Your task to perform on an android device: change keyboard looks Image 0: 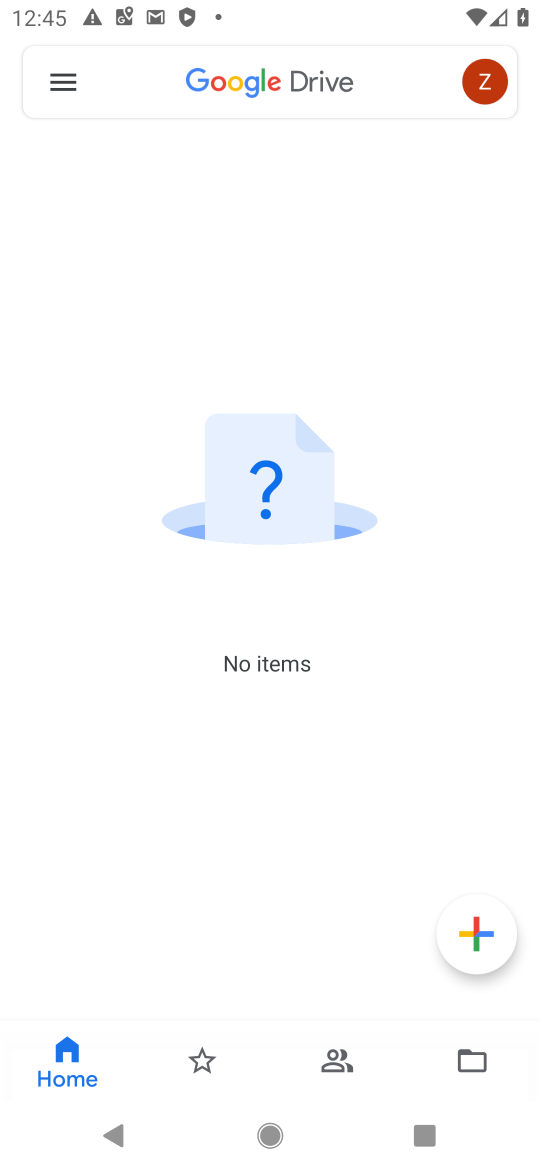
Step 0: drag from (260, 714) to (312, 420)
Your task to perform on an android device: change keyboard looks Image 1: 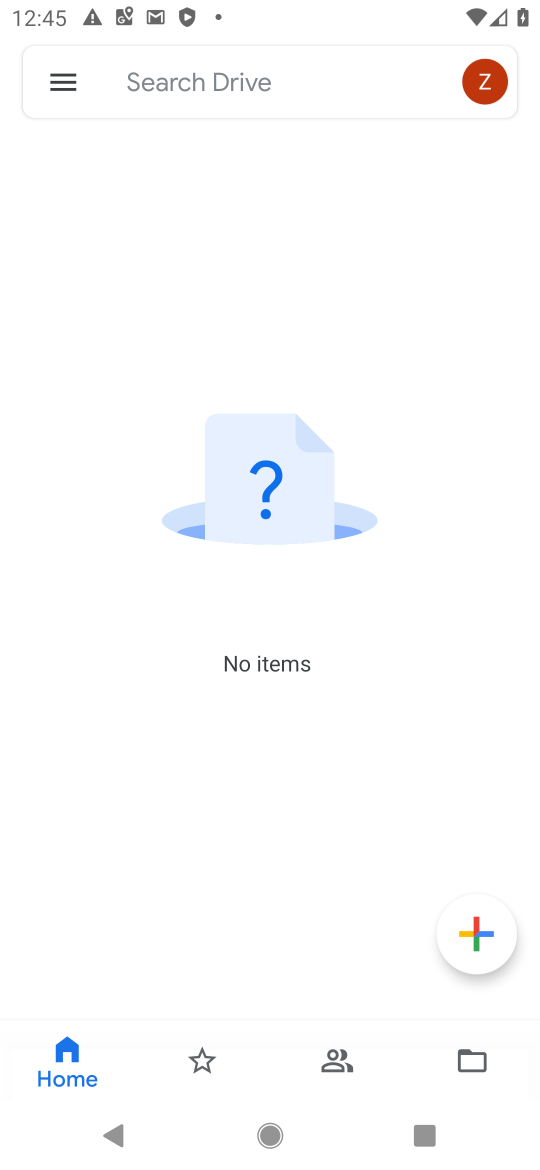
Step 1: drag from (298, 635) to (364, 345)
Your task to perform on an android device: change keyboard looks Image 2: 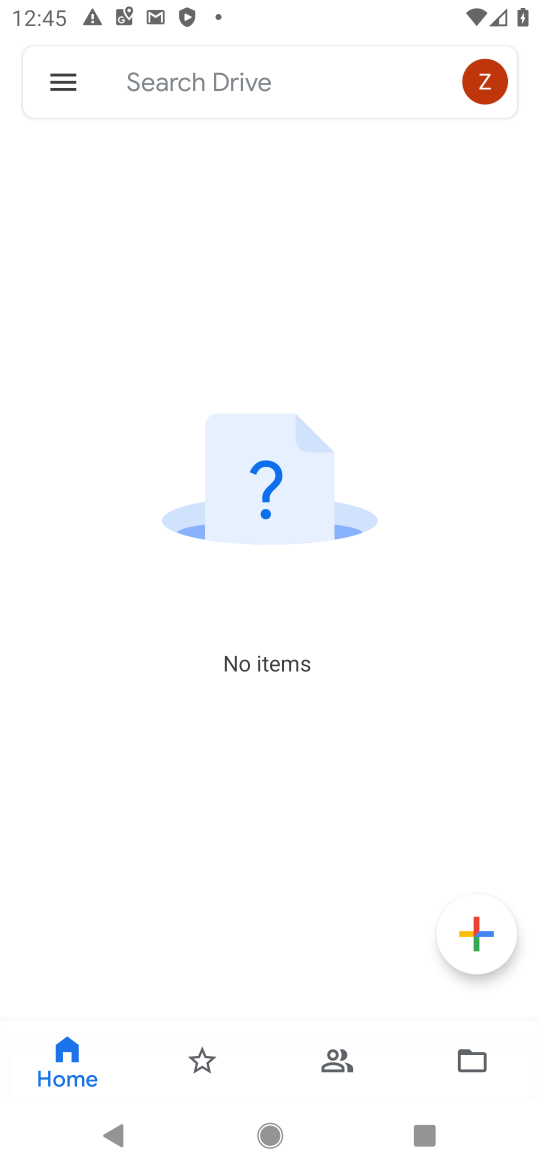
Step 2: press home button
Your task to perform on an android device: change keyboard looks Image 3: 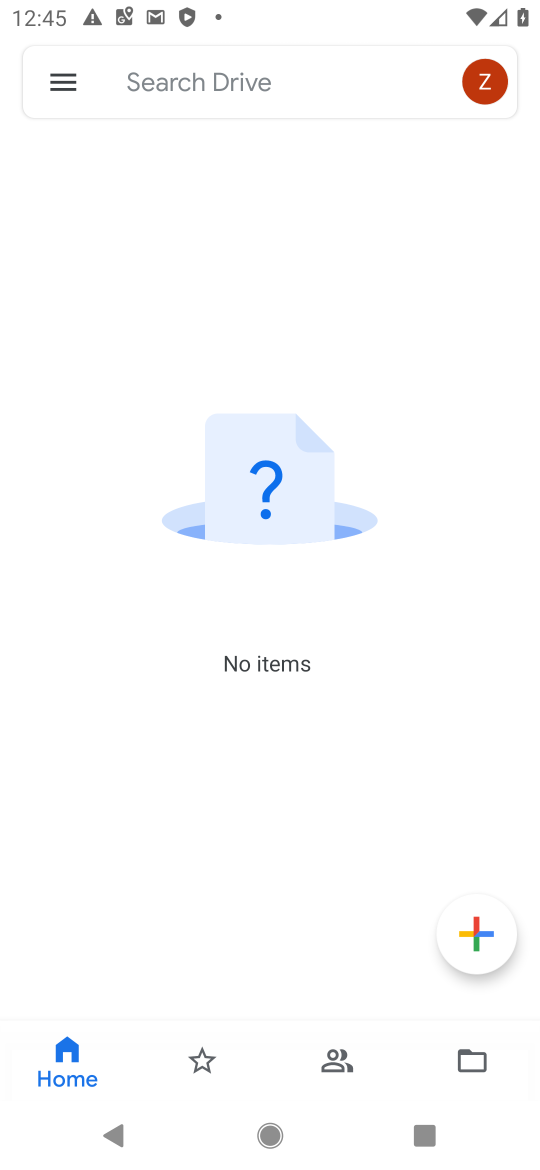
Step 3: drag from (307, 965) to (427, 496)
Your task to perform on an android device: change keyboard looks Image 4: 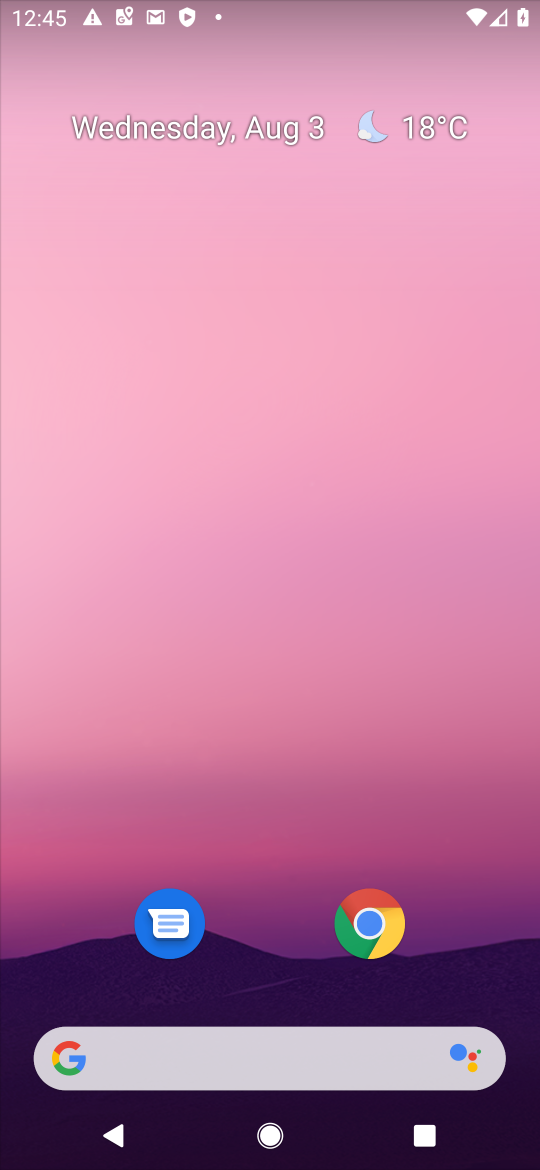
Step 4: drag from (263, 936) to (364, 128)
Your task to perform on an android device: change keyboard looks Image 5: 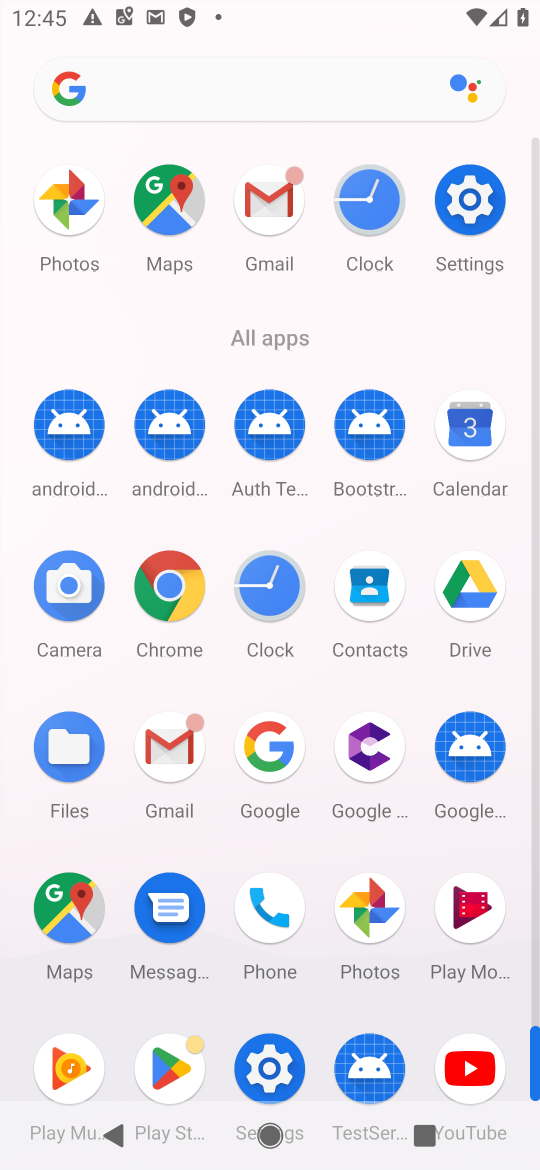
Step 5: click (264, 1042)
Your task to perform on an android device: change keyboard looks Image 6: 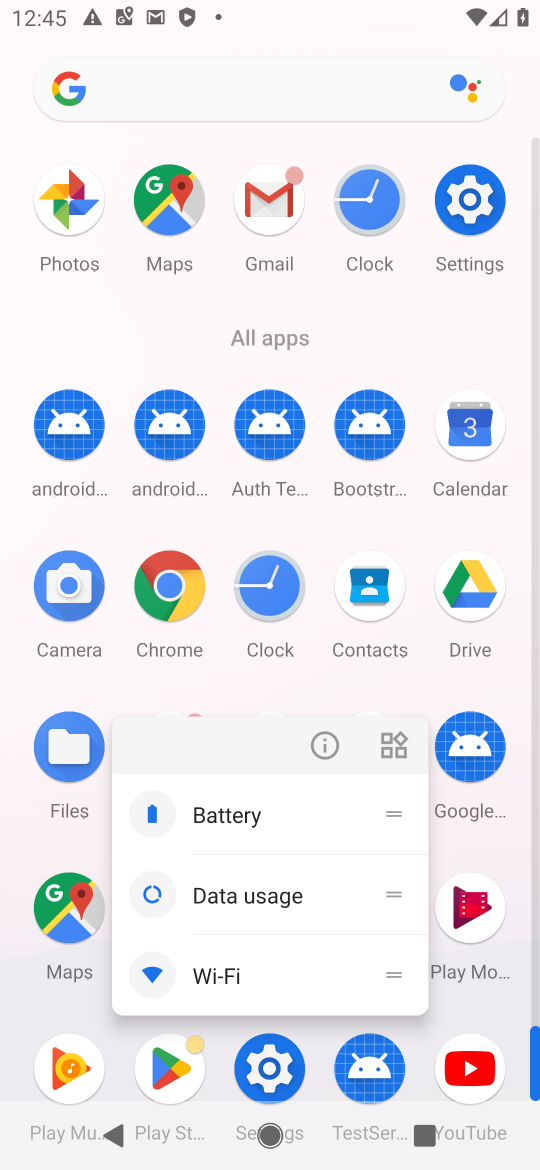
Step 6: click (327, 730)
Your task to perform on an android device: change keyboard looks Image 7: 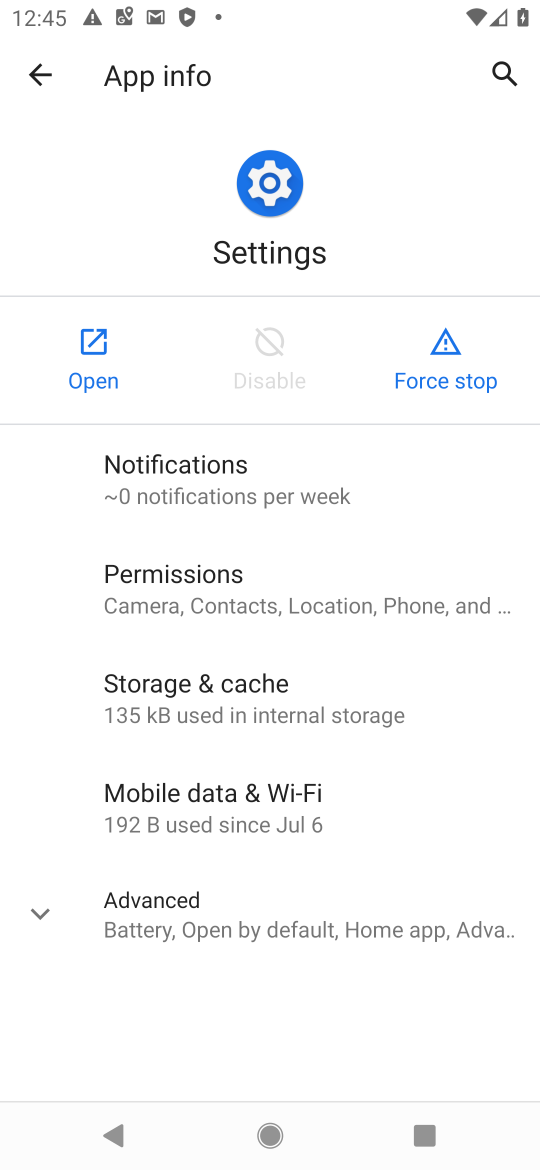
Step 7: click (114, 337)
Your task to perform on an android device: change keyboard looks Image 8: 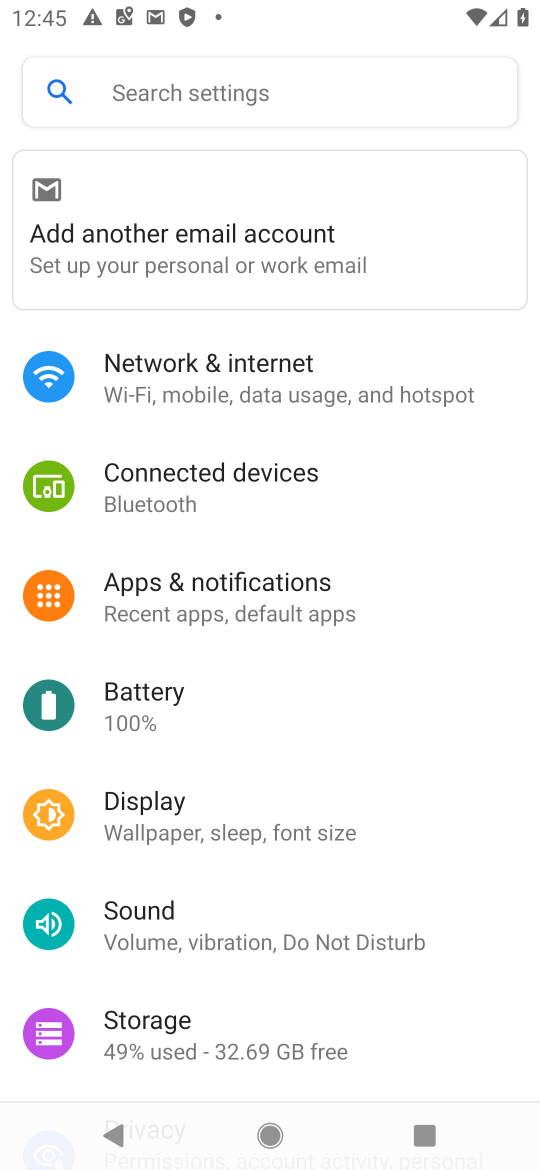
Step 8: drag from (237, 765) to (322, 389)
Your task to perform on an android device: change keyboard looks Image 9: 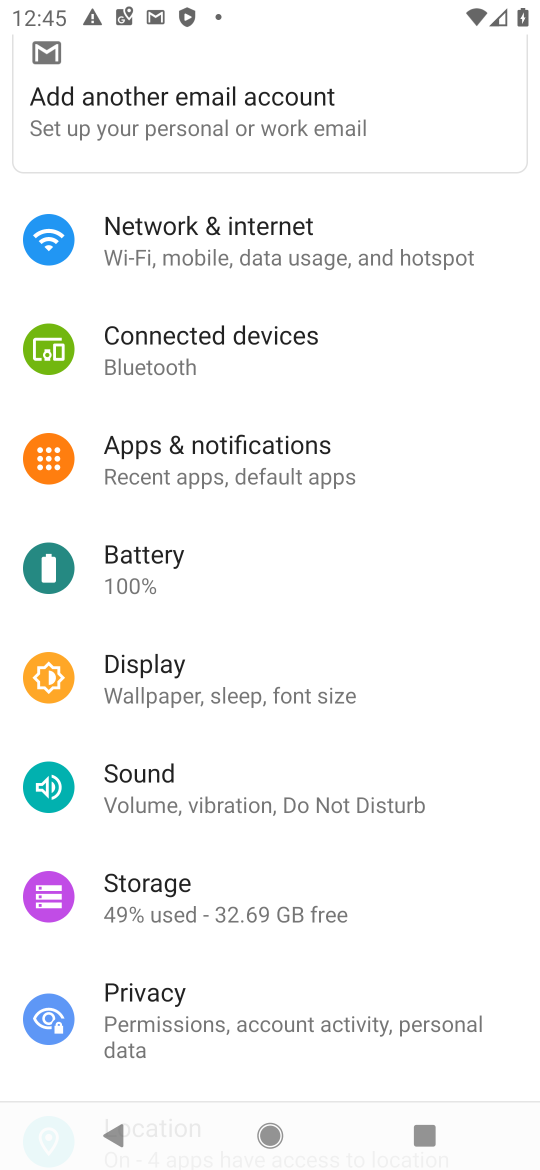
Step 9: drag from (216, 1023) to (339, 497)
Your task to perform on an android device: change keyboard looks Image 10: 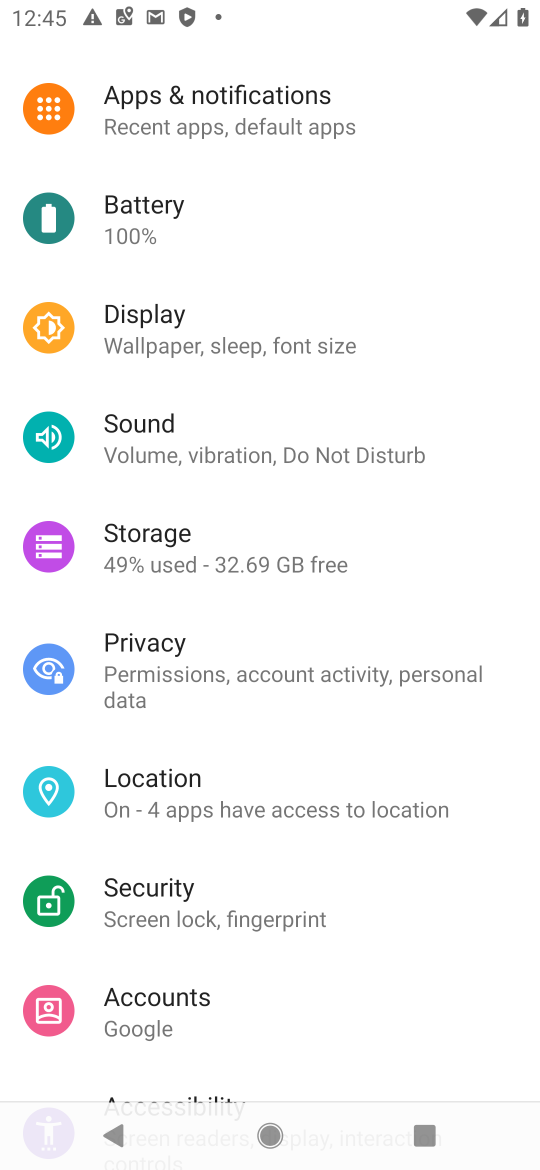
Step 10: drag from (388, 853) to (514, 197)
Your task to perform on an android device: change keyboard looks Image 11: 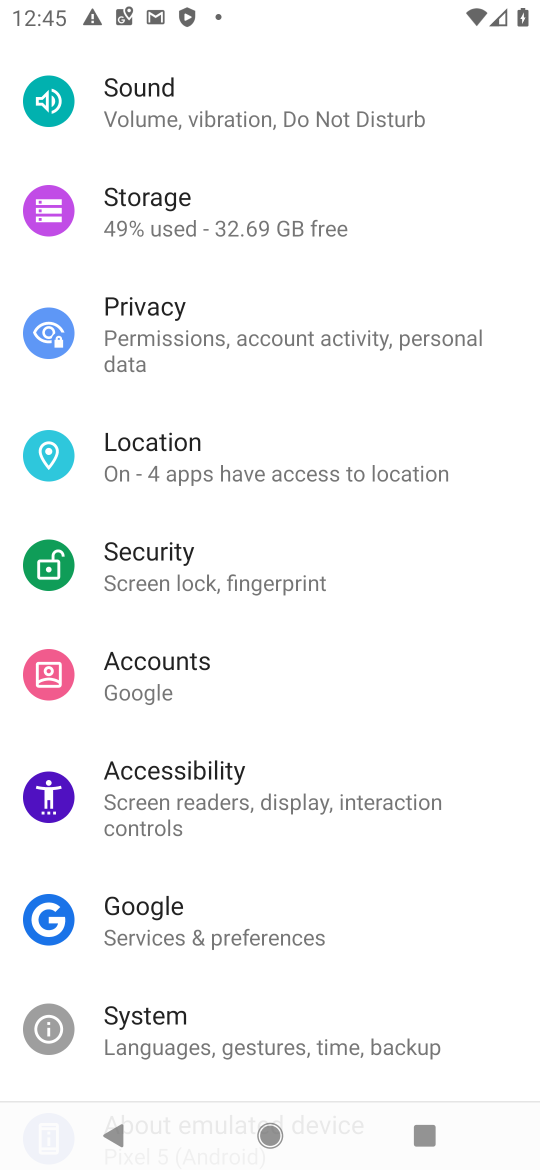
Step 11: click (182, 1000)
Your task to perform on an android device: change keyboard looks Image 12: 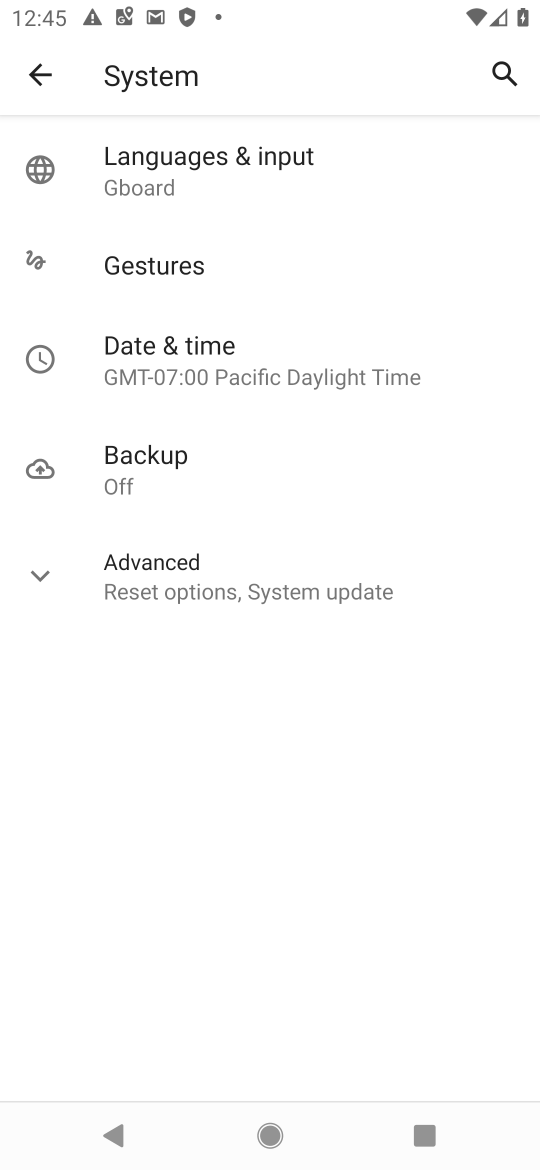
Step 12: click (301, 179)
Your task to perform on an android device: change keyboard looks Image 13: 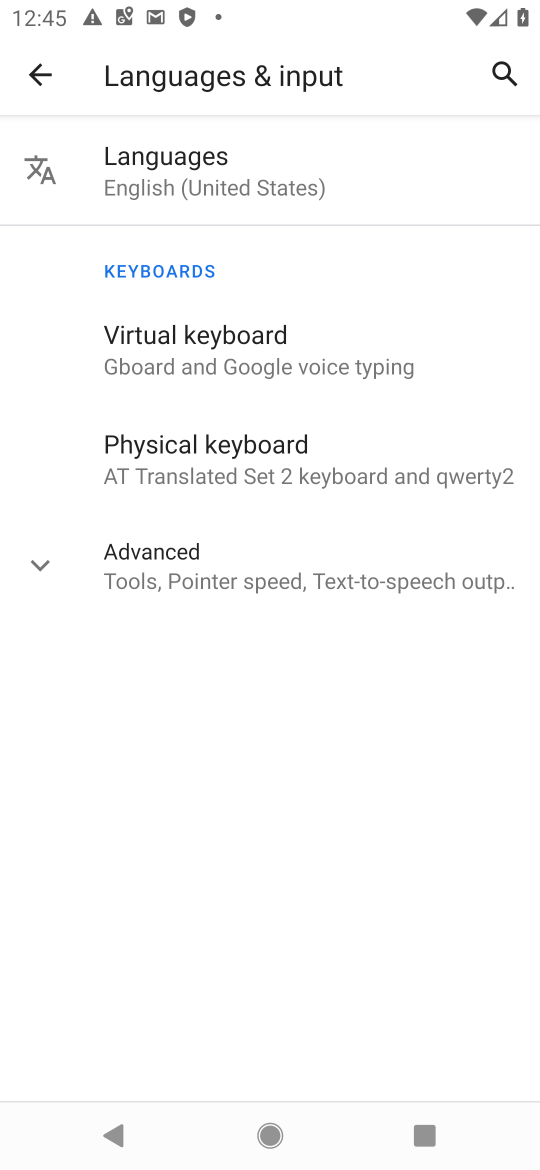
Step 13: click (187, 568)
Your task to perform on an android device: change keyboard looks Image 14: 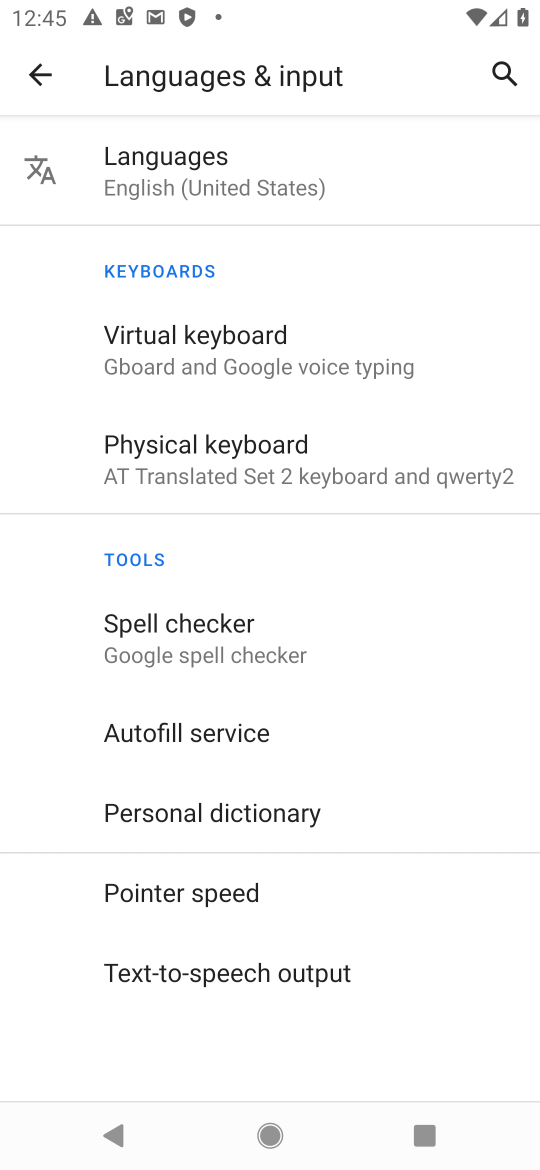
Step 14: click (265, 327)
Your task to perform on an android device: change keyboard looks Image 15: 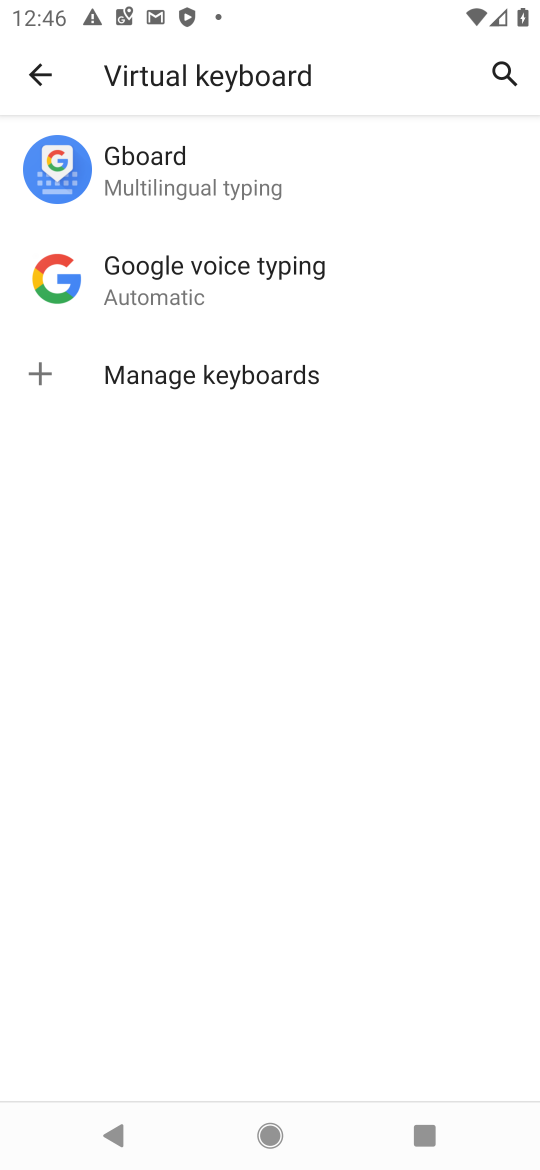
Step 15: click (237, 167)
Your task to perform on an android device: change keyboard looks Image 16: 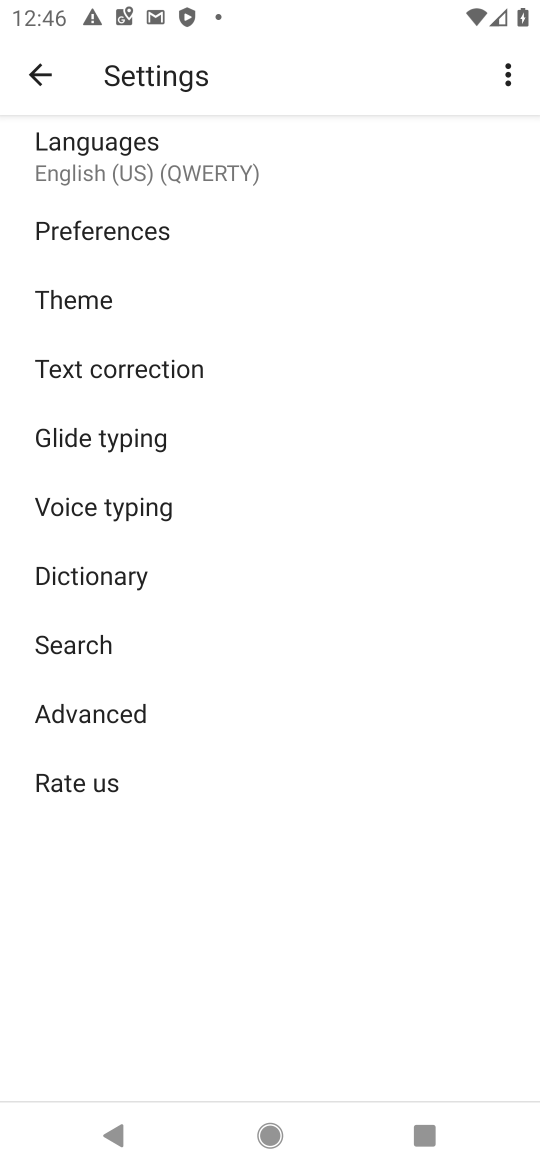
Step 16: click (107, 282)
Your task to perform on an android device: change keyboard looks Image 17: 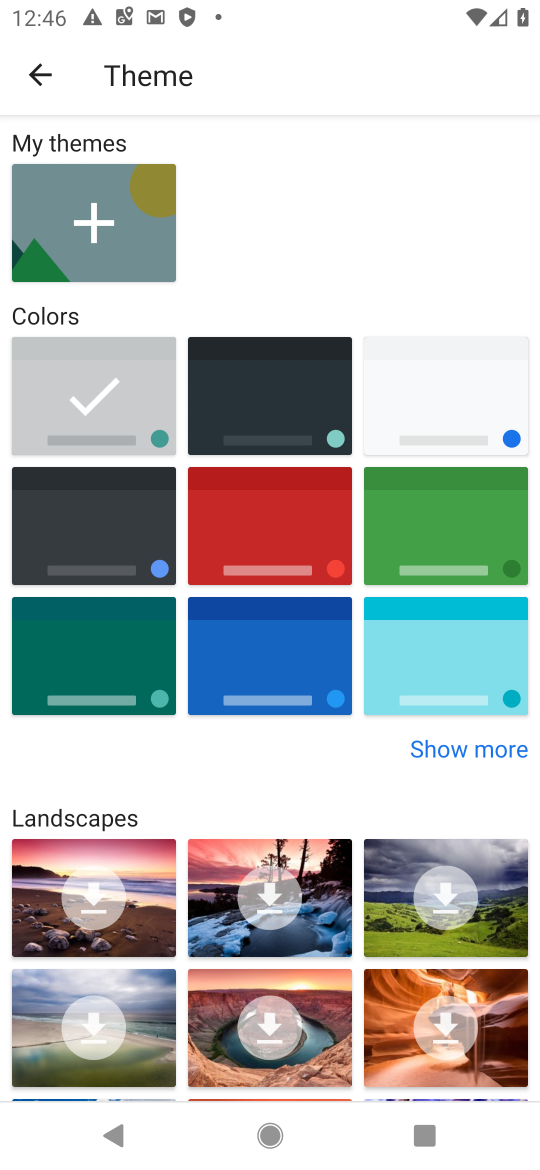
Step 17: click (245, 420)
Your task to perform on an android device: change keyboard looks Image 18: 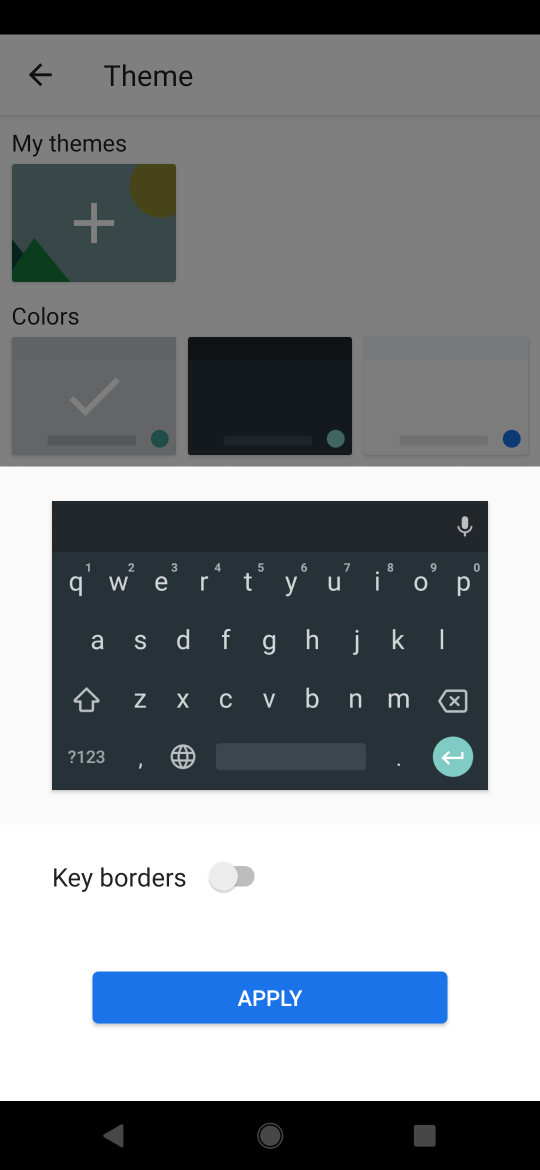
Step 18: click (223, 989)
Your task to perform on an android device: change keyboard looks Image 19: 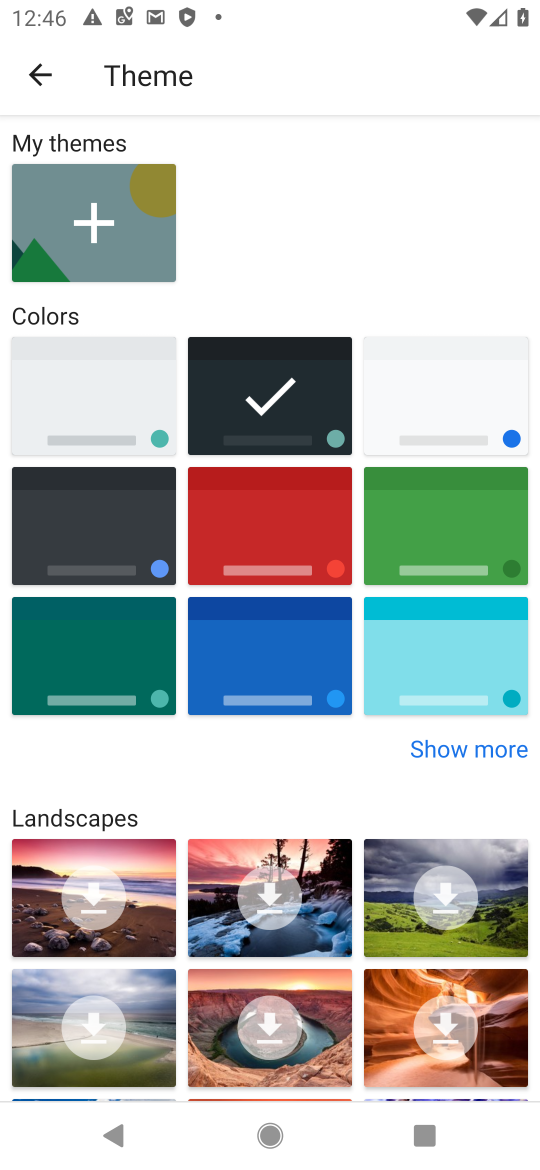
Step 19: task complete